Your task to perform on an android device: turn on wifi Image 0: 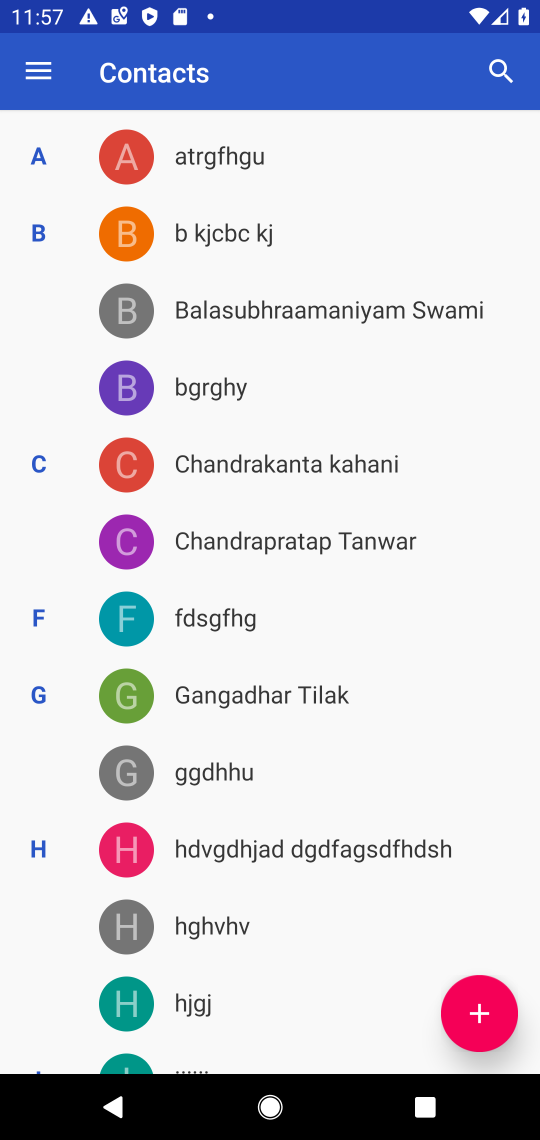
Step 0: press home button
Your task to perform on an android device: turn on wifi Image 1: 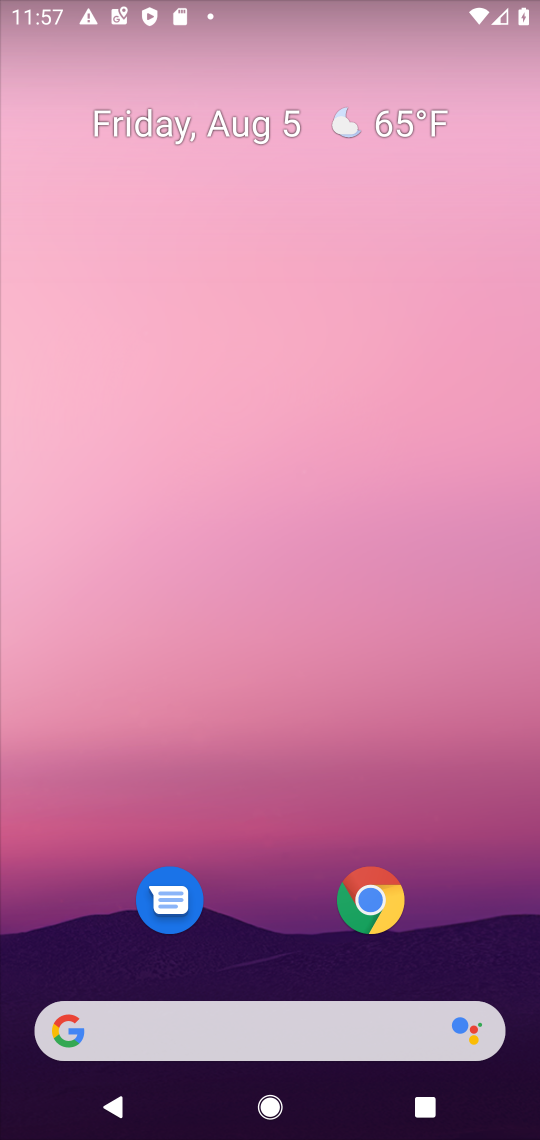
Step 1: drag from (249, 878) to (326, 83)
Your task to perform on an android device: turn on wifi Image 2: 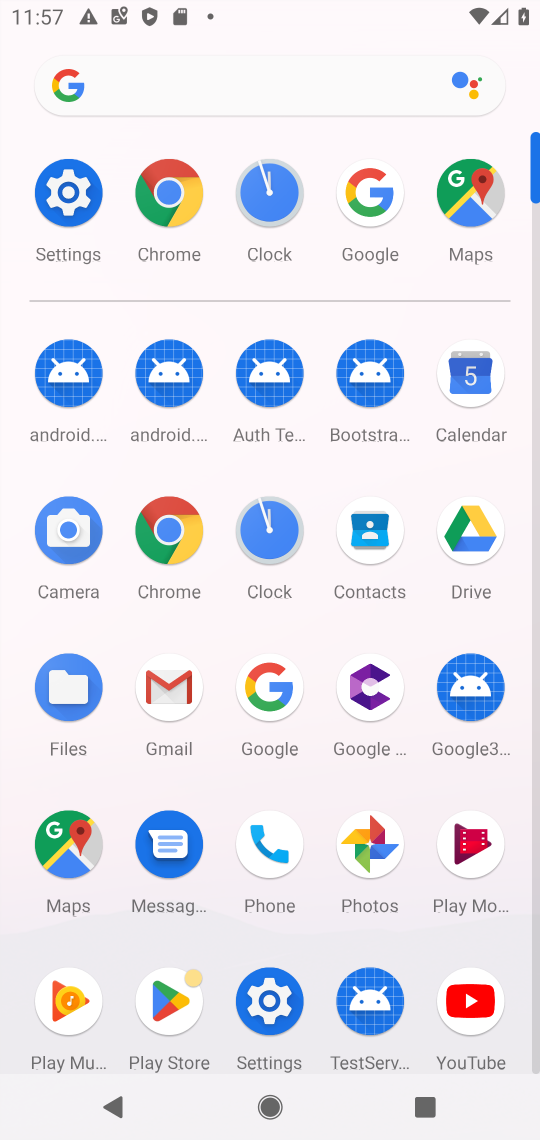
Step 2: click (55, 185)
Your task to perform on an android device: turn on wifi Image 3: 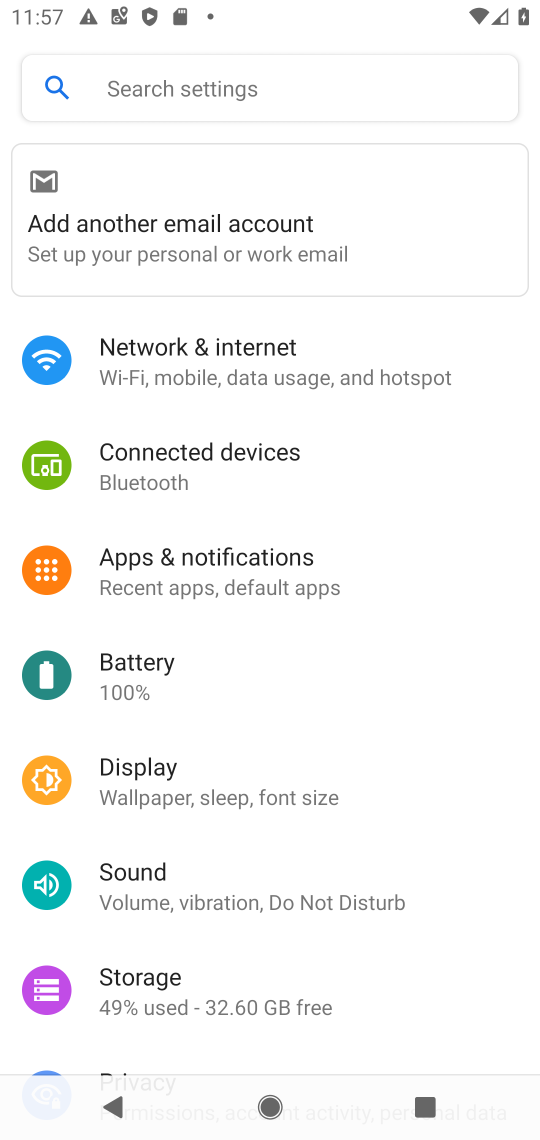
Step 3: click (239, 347)
Your task to perform on an android device: turn on wifi Image 4: 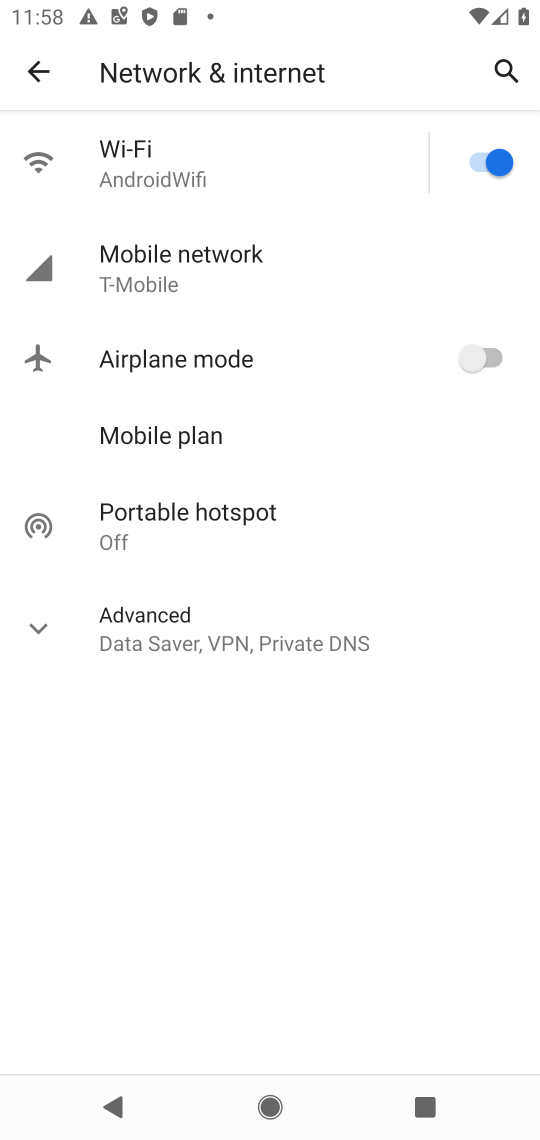
Step 4: task complete